Your task to perform on an android device: Open the calendar app, open the side menu, and click the "Day" option Image 0: 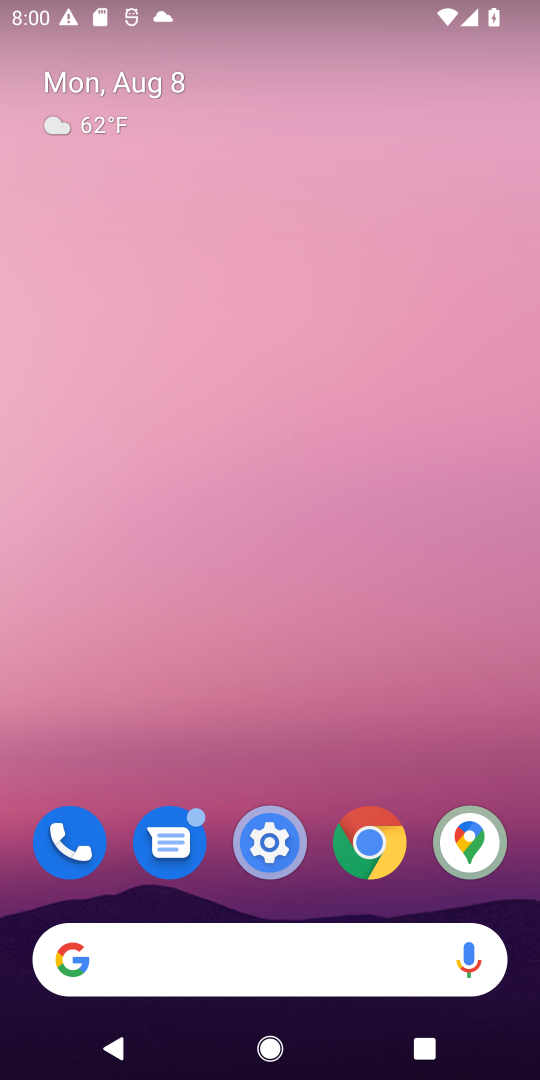
Step 0: drag from (266, 737) to (327, 0)
Your task to perform on an android device: Open the calendar app, open the side menu, and click the "Day" option Image 1: 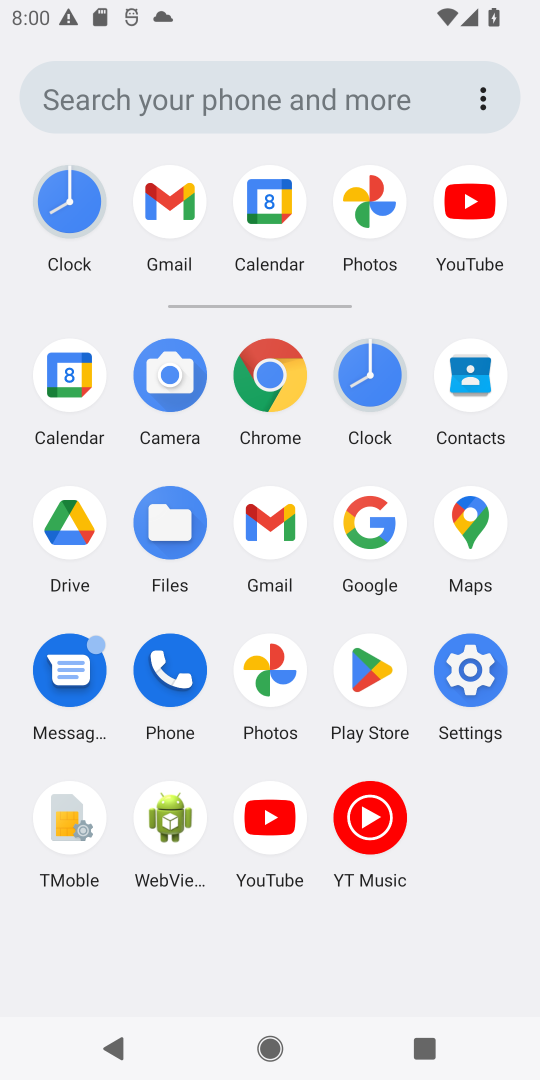
Step 1: click (71, 362)
Your task to perform on an android device: Open the calendar app, open the side menu, and click the "Day" option Image 2: 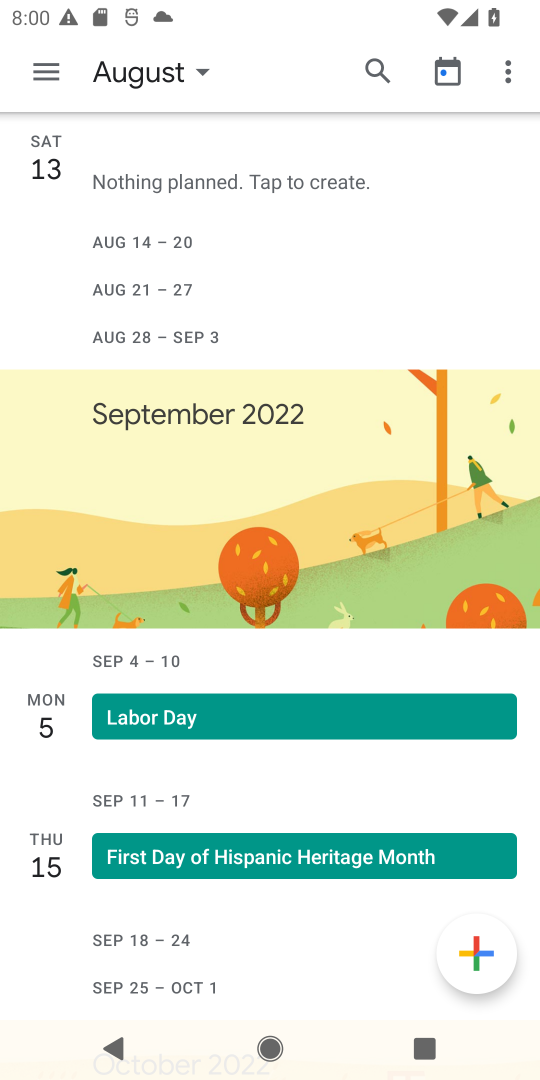
Step 2: click (48, 68)
Your task to perform on an android device: Open the calendar app, open the side menu, and click the "Day" option Image 3: 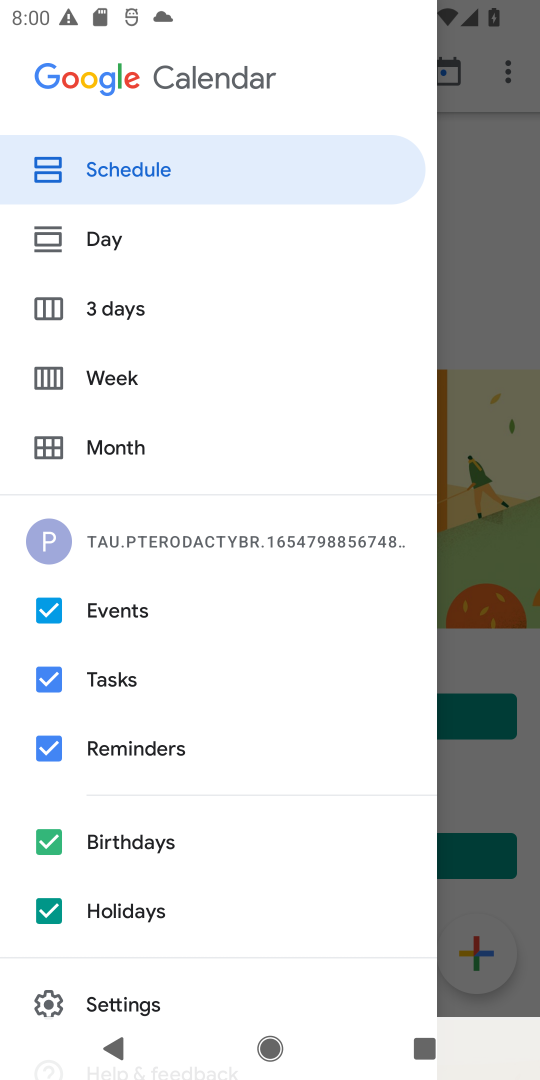
Step 3: click (51, 241)
Your task to perform on an android device: Open the calendar app, open the side menu, and click the "Day" option Image 4: 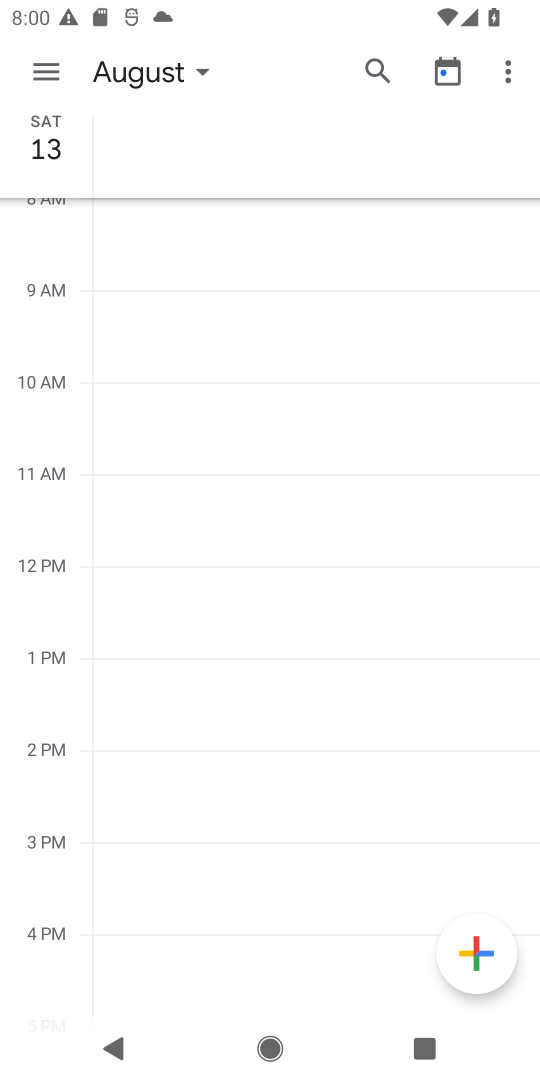
Step 4: task complete